Your task to perform on an android device: open app "Walmart Shopping & Grocery" Image 0: 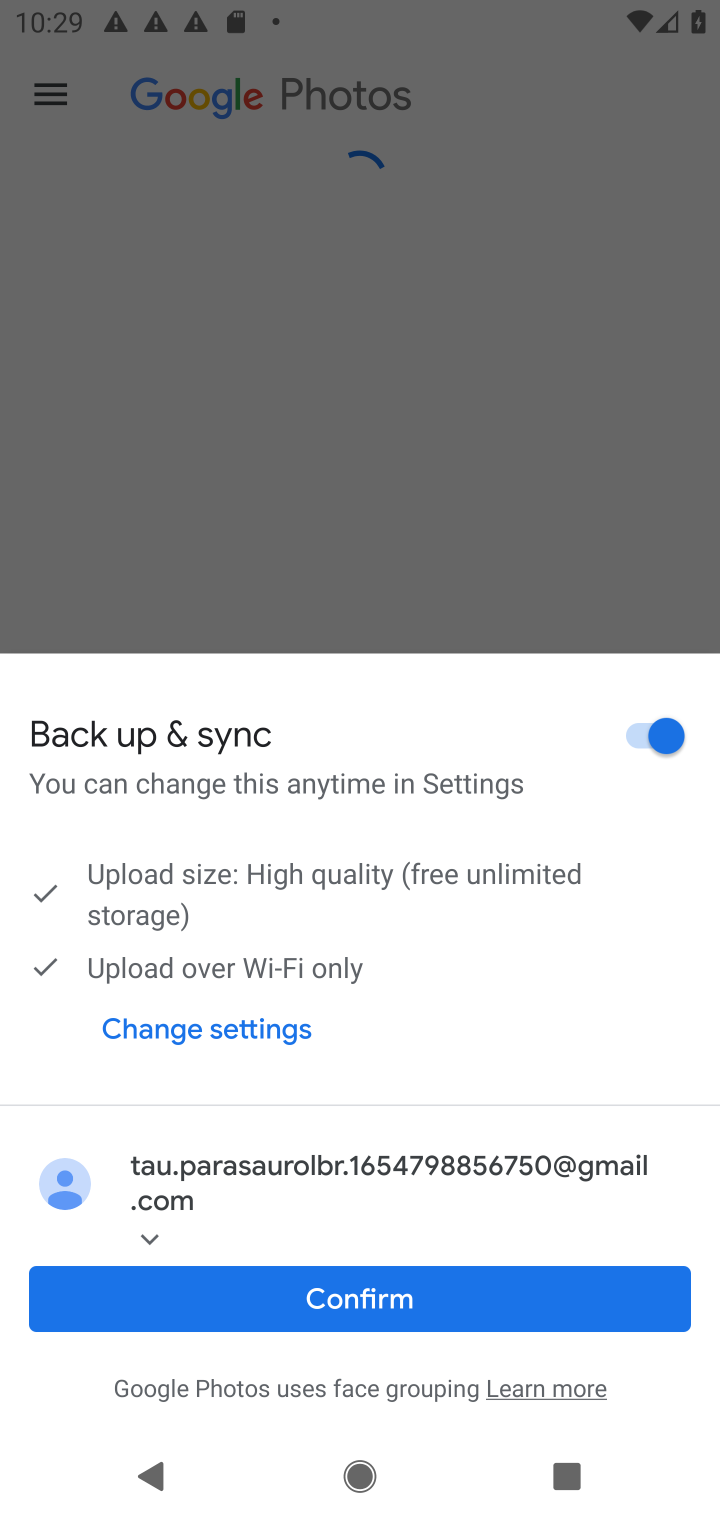
Step 0: press home button
Your task to perform on an android device: open app "Walmart Shopping & Grocery" Image 1: 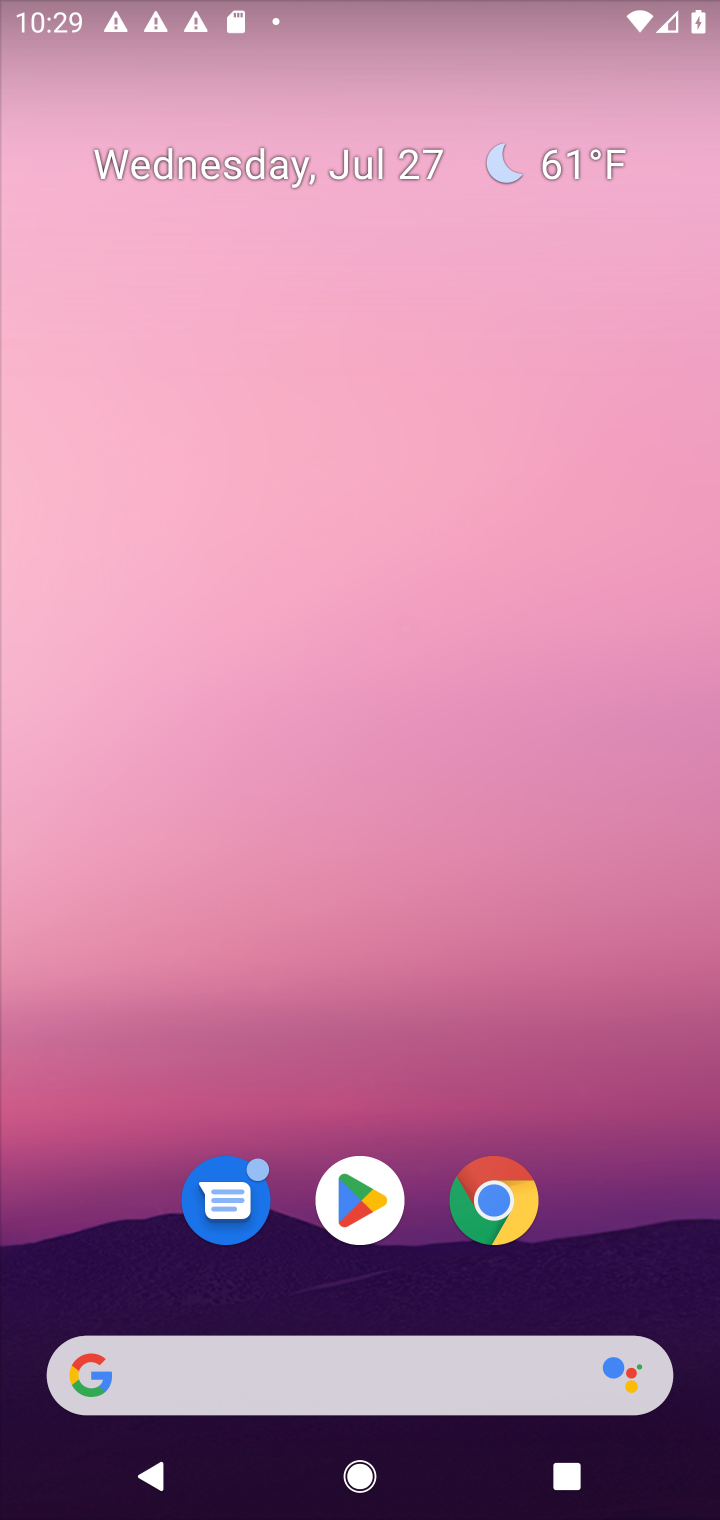
Step 1: click (353, 1216)
Your task to perform on an android device: open app "Walmart Shopping & Grocery" Image 2: 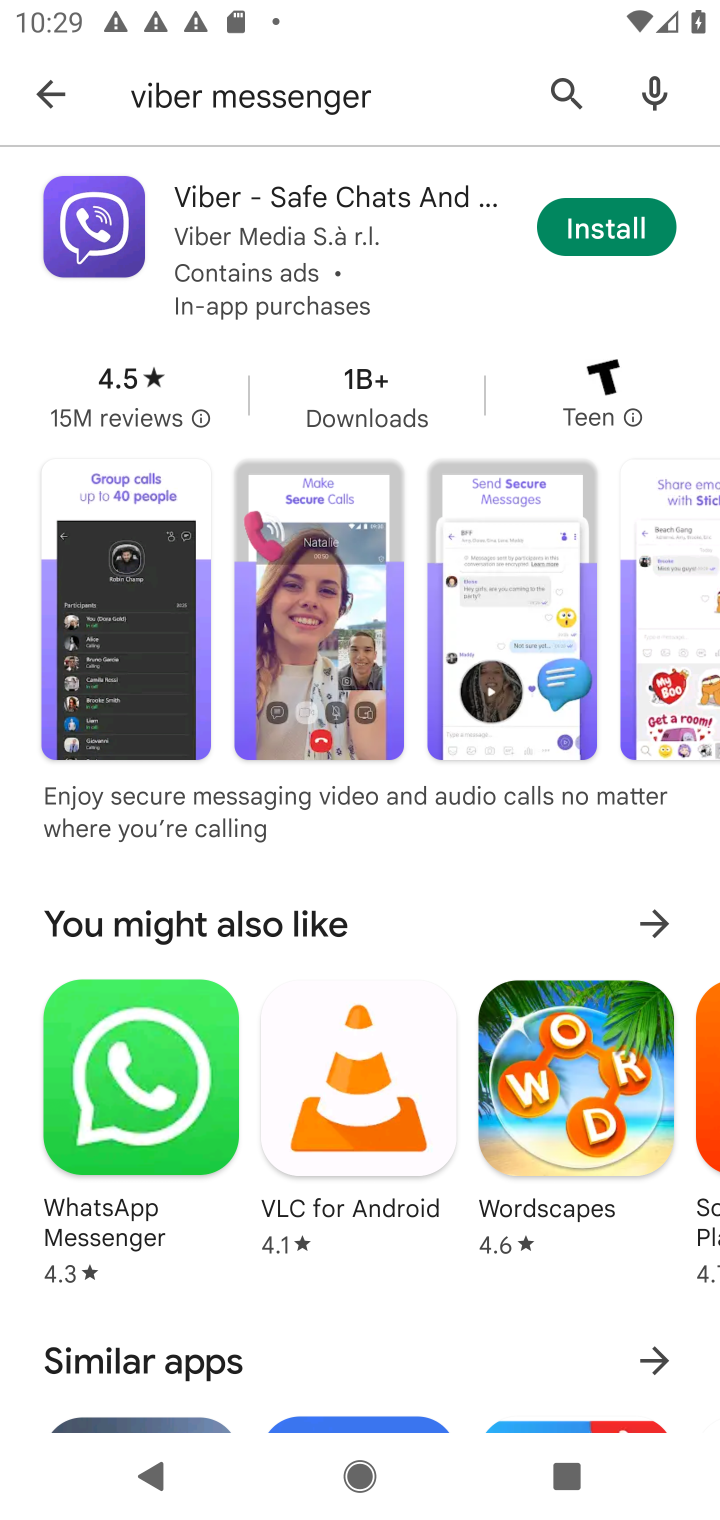
Step 2: click (66, 84)
Your task to perform on an android device: open app "Walmart Shopping & Grocery" Image 3: 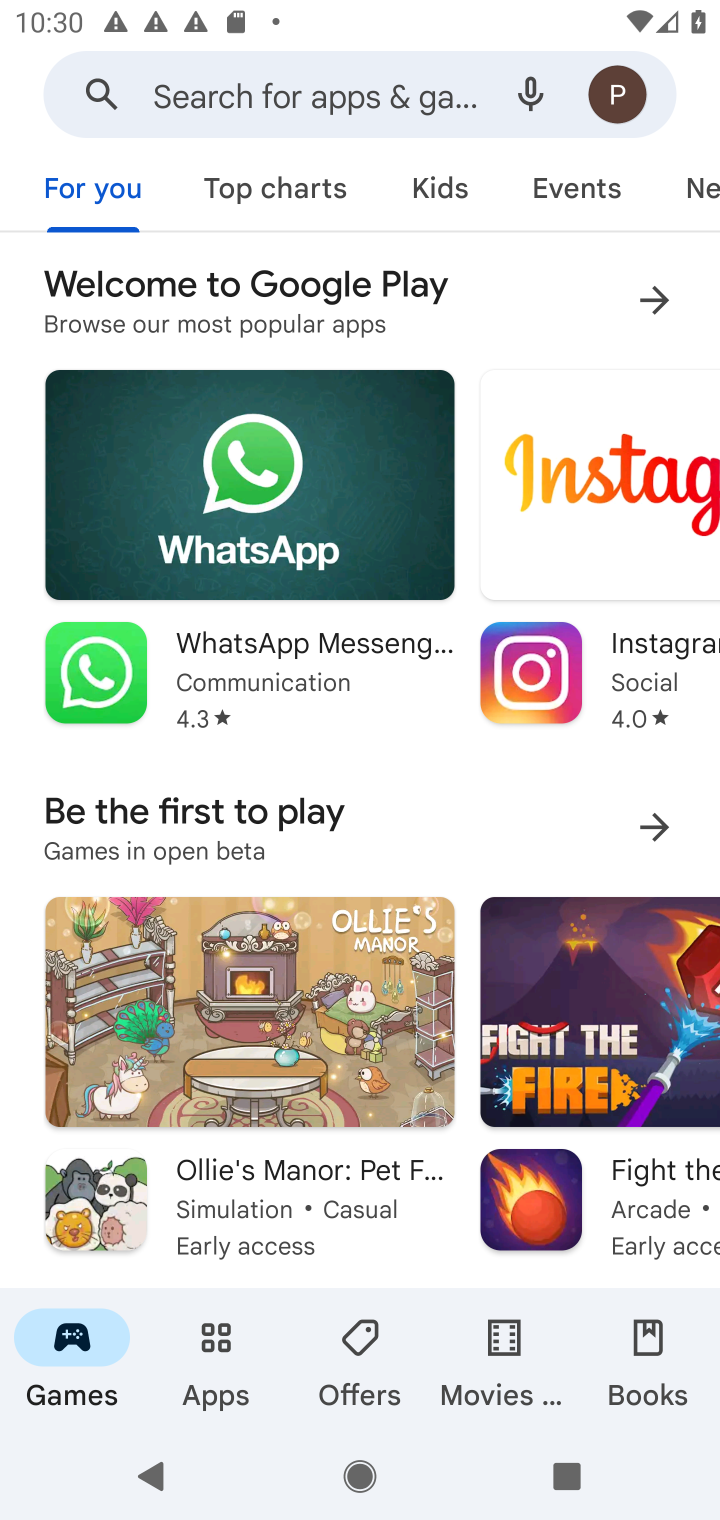
Step 3: click (308, 98)
Your task to perform on an android device: open app "Walmart Shopping & Grocery" Image 4: 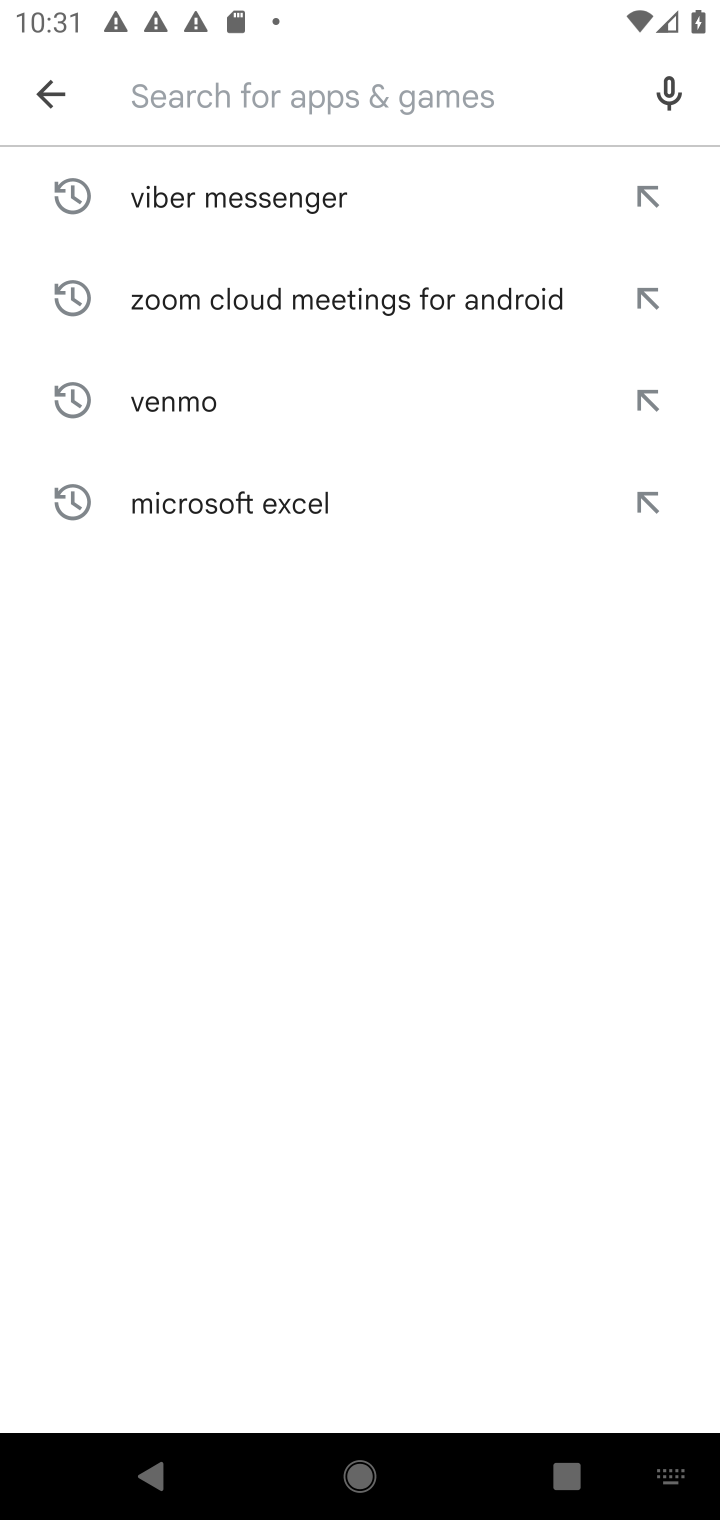
Step 4: type "walmart"
Your task to perform on an android device: open app "Walmart Shopping & Grocery" Image 5: 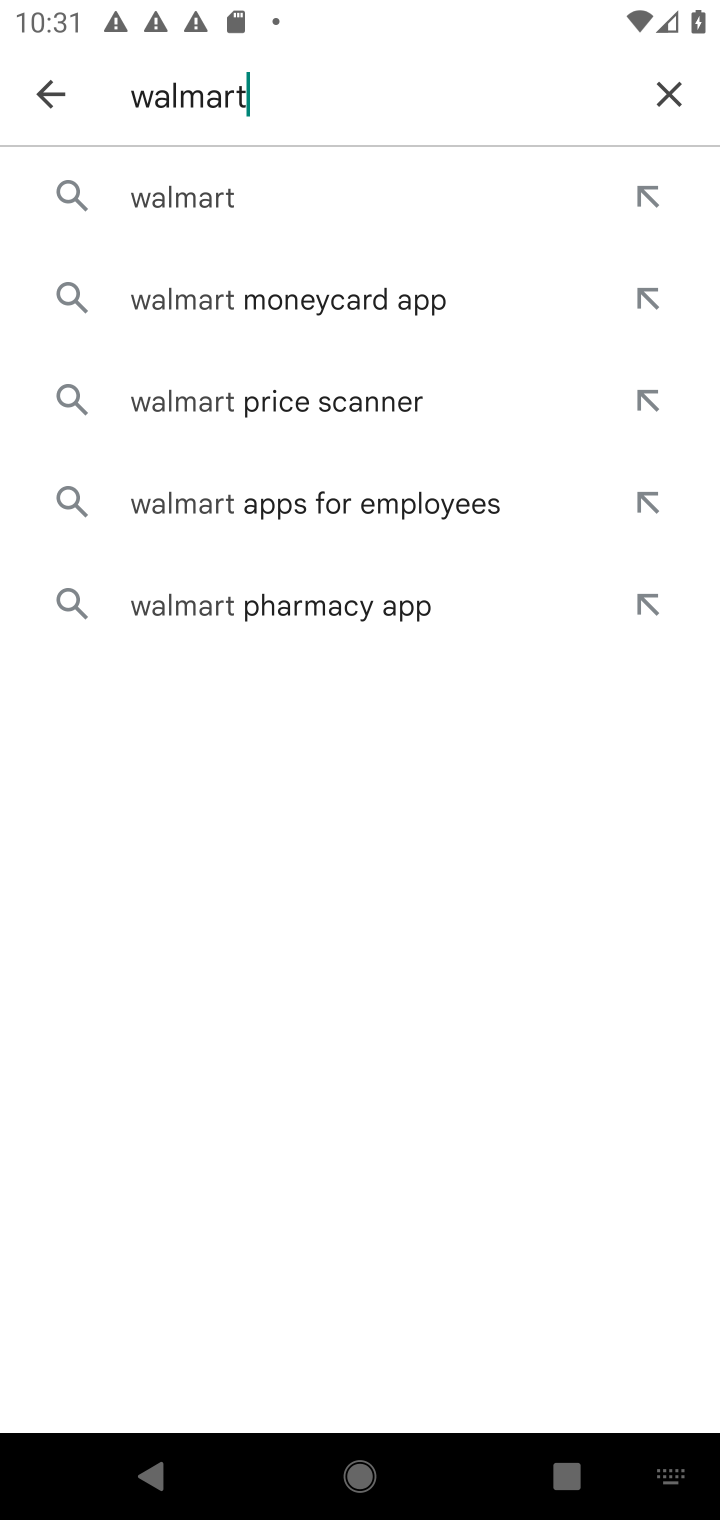
Step 5: type " shopping"
Your task to perform on an android device: open app "Walmart Shopping & Grocery" Image 6: 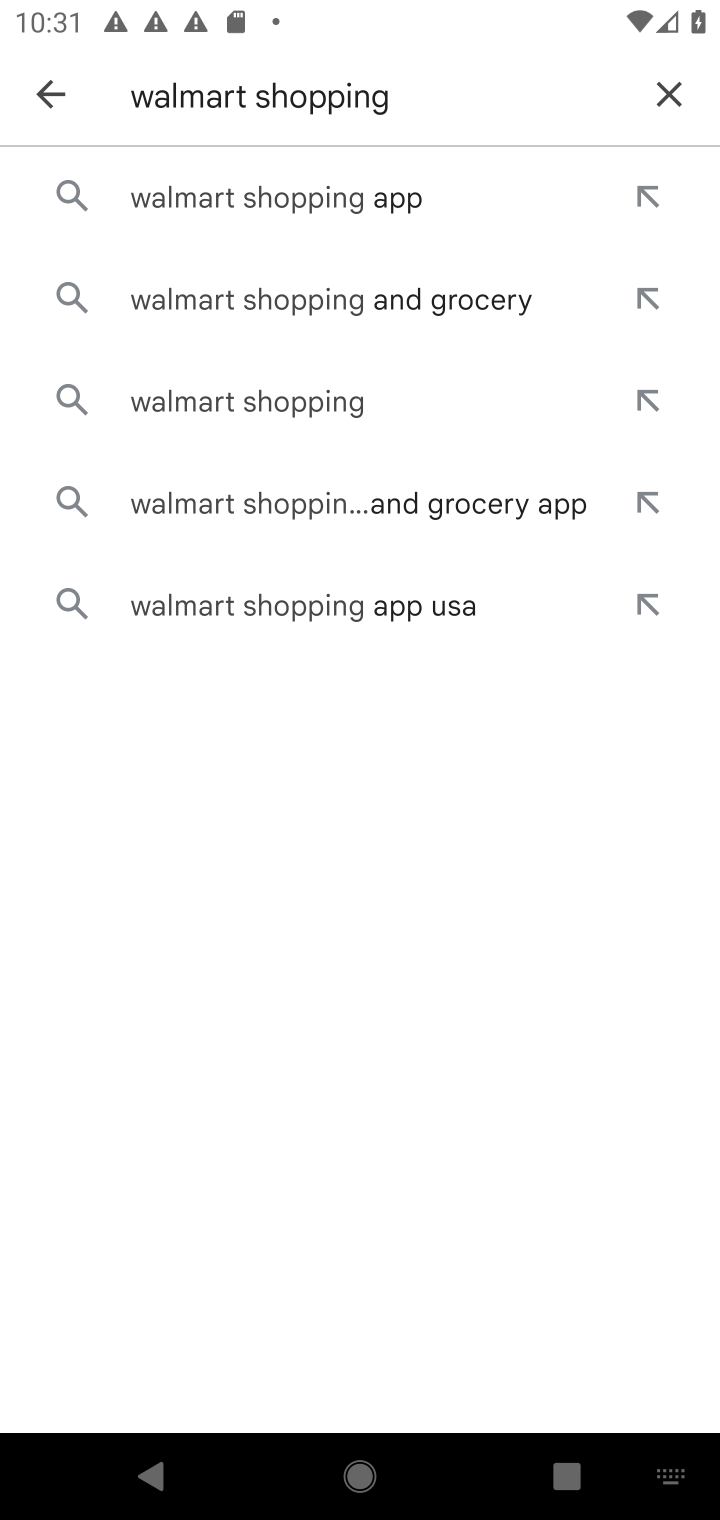
Step 6: click (309, 293)
Your task to perform on an android device: open app "Walmart Shopping & Grocery" Image 7: 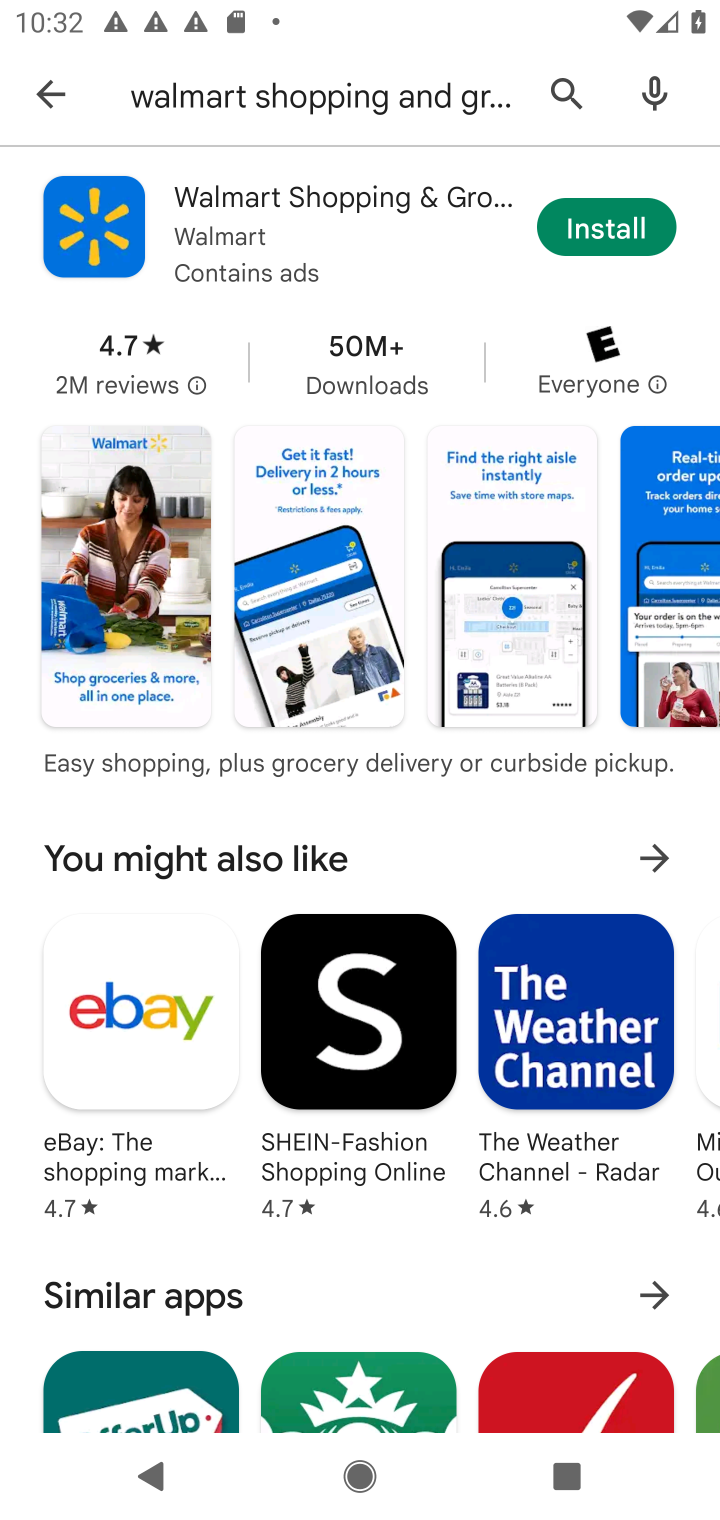
Step 7: task complete